Your task to perform on an android device: Set the phone to "Do not disturb". Image 0: 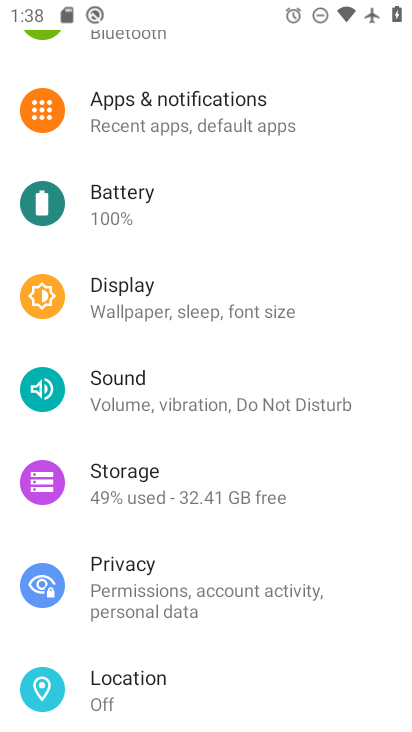
Step 0: press home button
Your task to perform on an android device: Set the phone to "Do not disturb". Image 1: 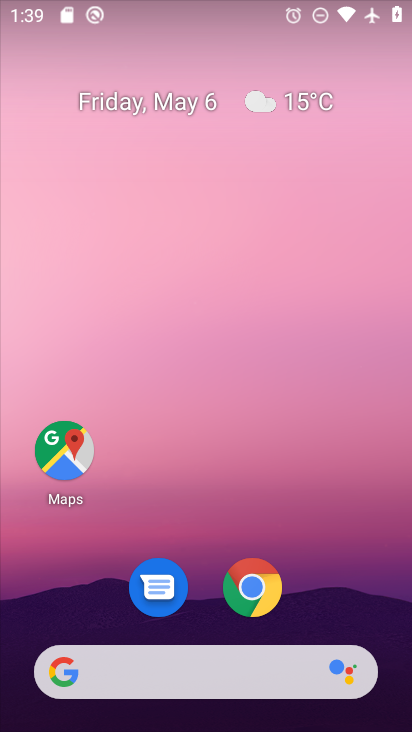
Step 1: drag from (318, 493) to (192, 13)
Your task to perform on an android device: Set the phone to "Do not disturb". Image 2: 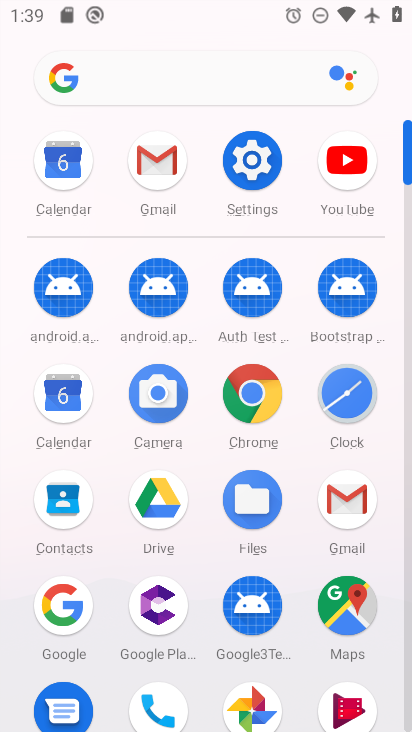
Step 2: click (256, 159)
Your task to perform on an android device: Set the phone to "Do not disturb". Image 3: 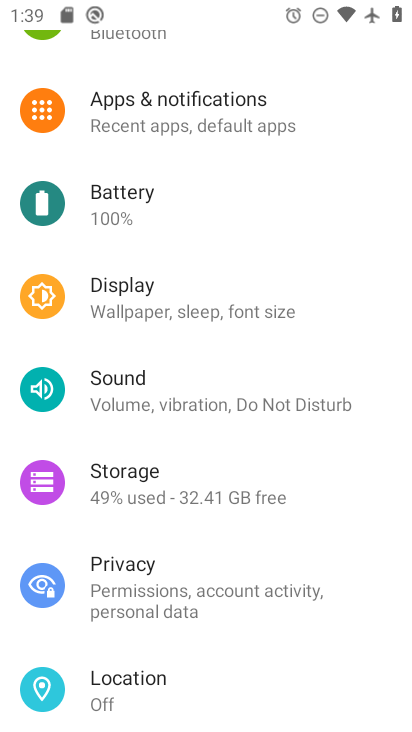
Step 3: click (136, 386)
Your task to perform on an android device: Set the phone to "Do not disturb". Image 4: 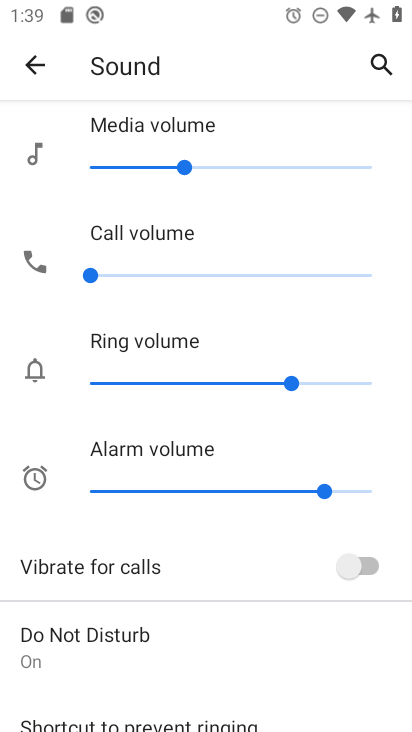
Step 4: click (135, 656)
Your task to perform on an android device: Set the phone to "Do not disturb". Image 5: 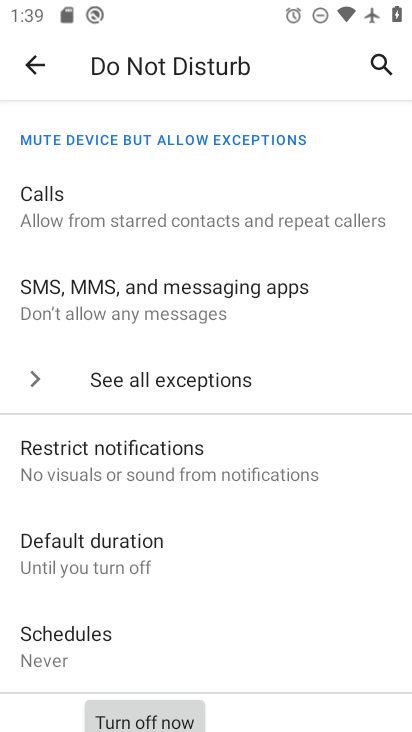
Step 5: task complete